Your task to perform on an android device: Open the stopwatch Image 0: 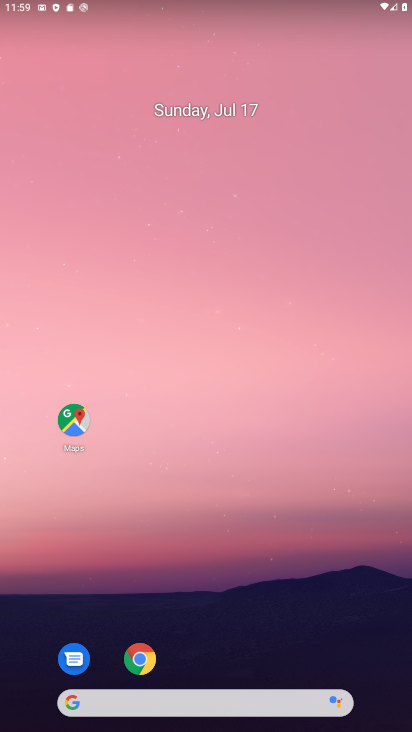
Step 0: drag from (317, 529) to (328, 209)
Your task to perform on an android device: Open the stopwatch Image 1: 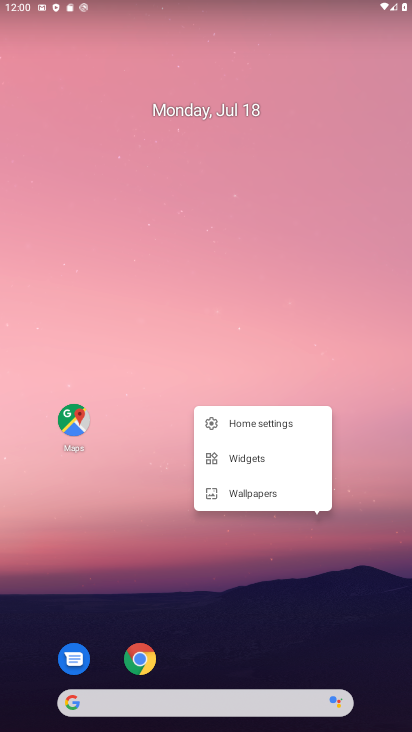
Step 1: drag from (211, 699) to (258, 242)
Your task to perform on an android device: Open the stopwatch Image 2: 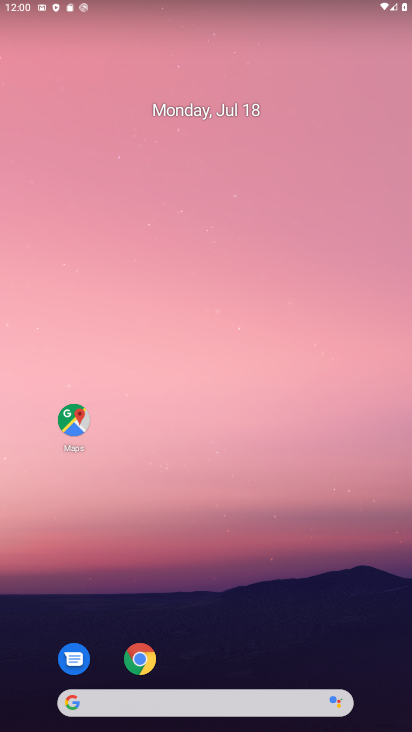
Step 2: drag from (198, 655) to (263, 177)
Your task to perform on an android device: Open the stopwatch Image 3: 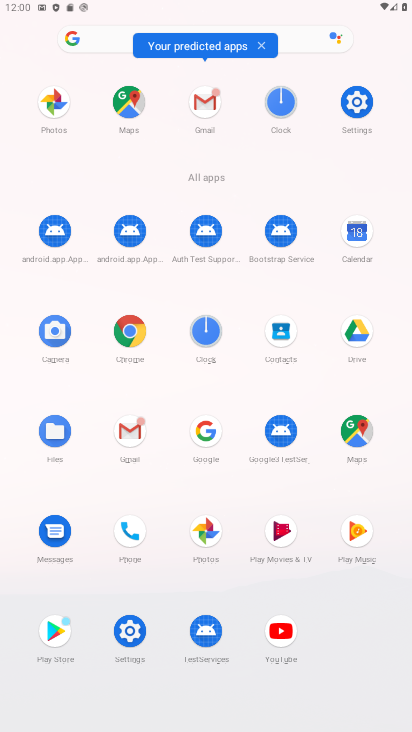
Step 3: click (197, 341)
Your task to perform on an android device: Open the stopwatch Image 4: 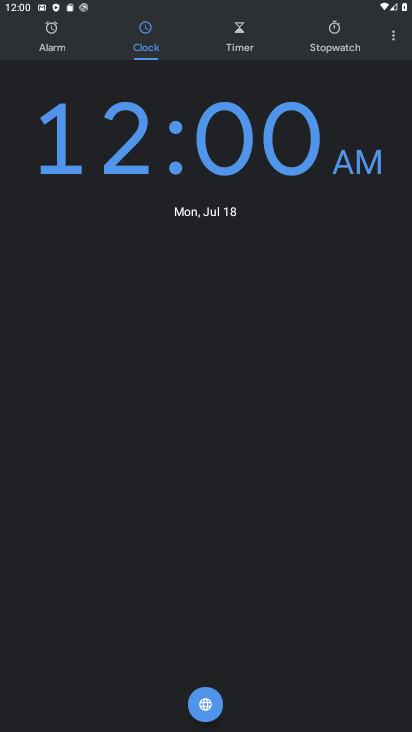
Step 4: click (336, 42)
Your task to perform on an android device: Open the stopwatch Image 5: 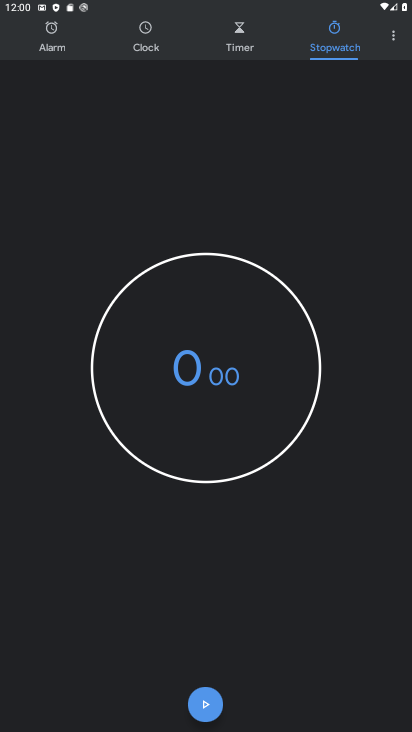
Step 5: task complete